Your task to perform on an android device: Play the last video I watched on Youtube Image 0: 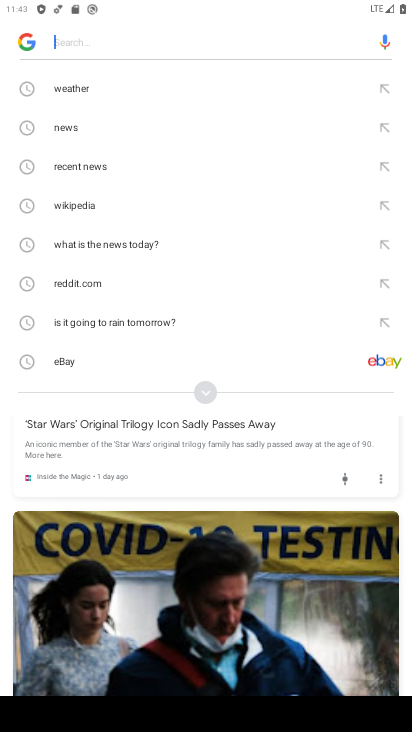
Step 0: press home button
Your task to perform on an android device: Play the last video I watched on Youtube Image 1: 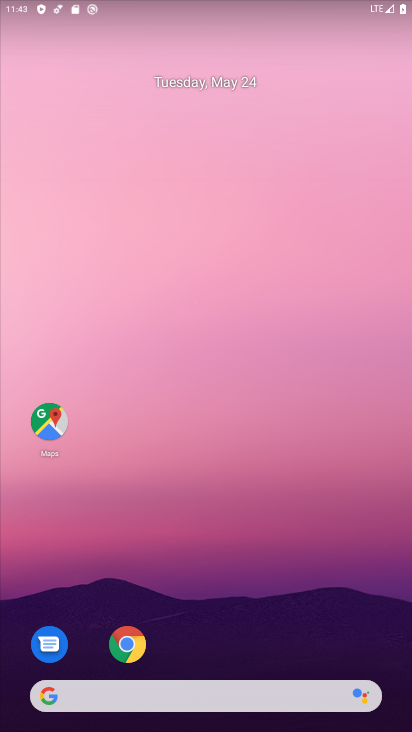
Step 1: drag from (296, 519) to (224, 140)
Your task to perform on an android device: Play the last video I watched on Youtube Image 2: 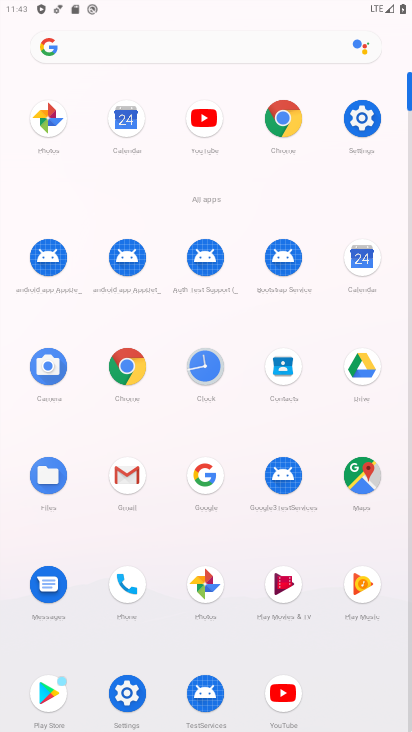
Step 2: click (283, 689)
Your task to perform on an android device: Play the last video I watched on Youtube Image 3: 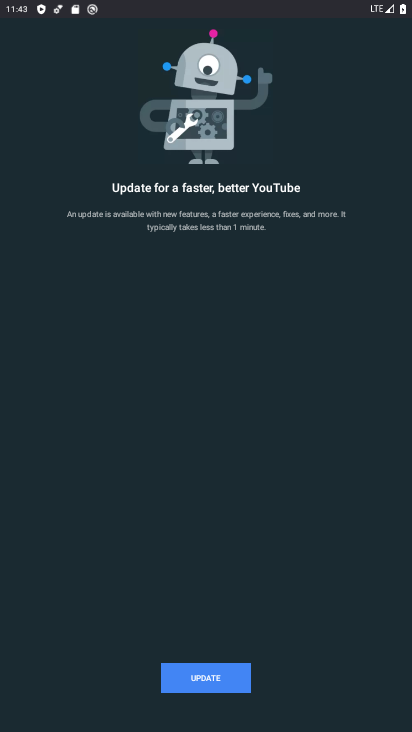
Step 3: click (223, 676)
Your task to perform on an android device: Play the last video I watched on Youtube Image 4: 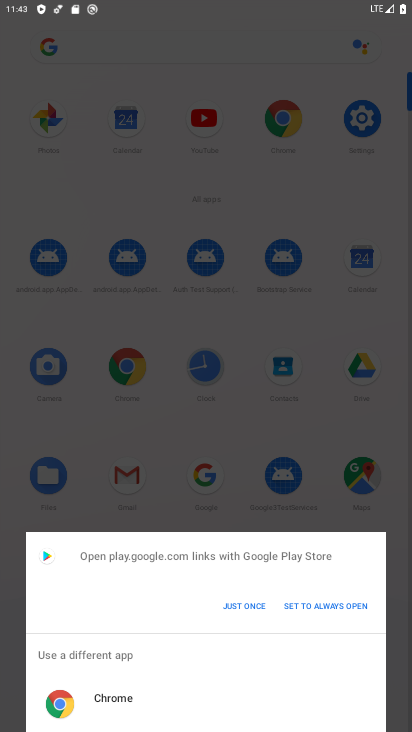
Step 4: click (247, 609)
Your task to perform on an android device: Play the last video I watched on Youtube Image 5: 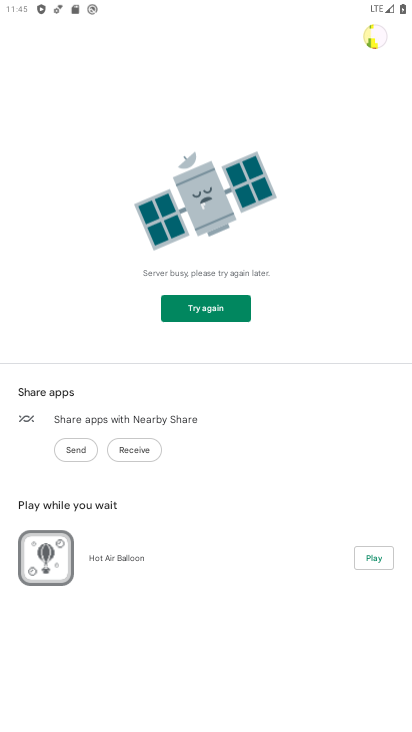
Step 5: task complete